Your task to perform on an android device: remove spam from my inbox in the gmail app Image 0: 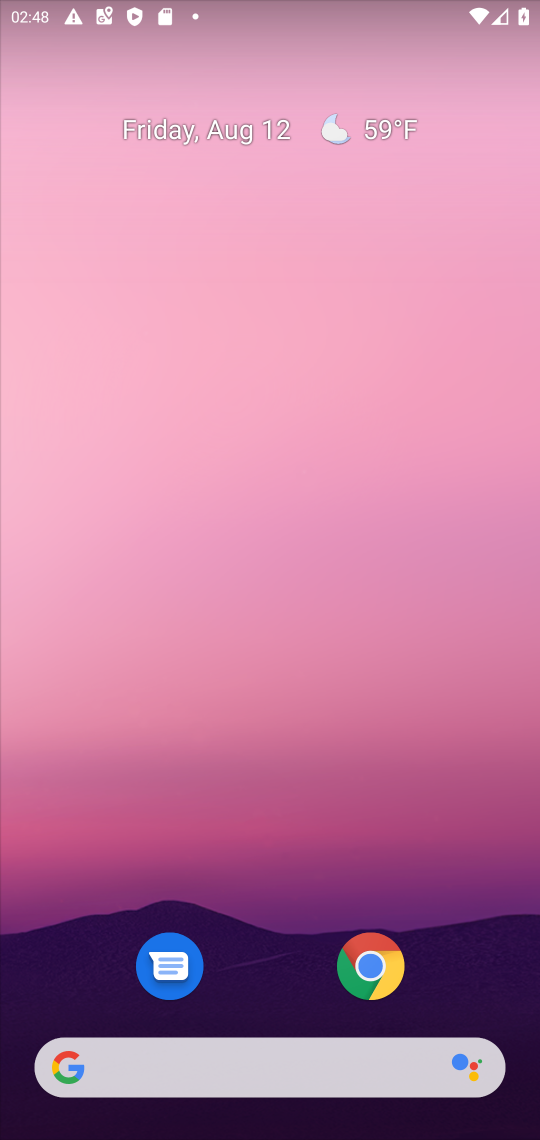
Step 0: drag from (445, 900) to (501, 35)
Your task to perform on an android device: remove spam from my inbox in the gmail app Image 1: 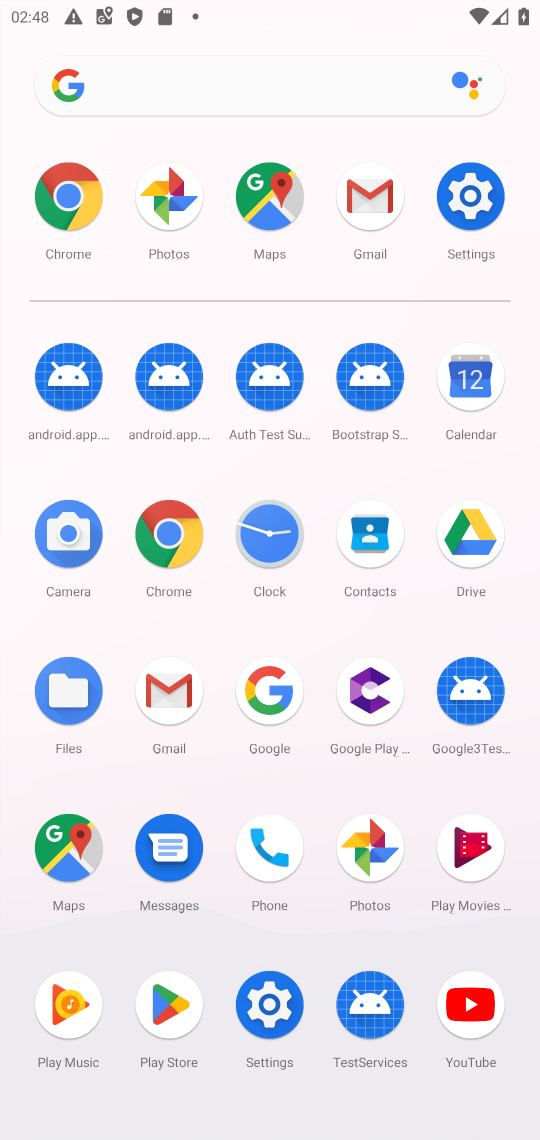
Step 1: click (369, 209)
Your task to perform on an android device: remove spam from my inbox in the gmail app Image 2: 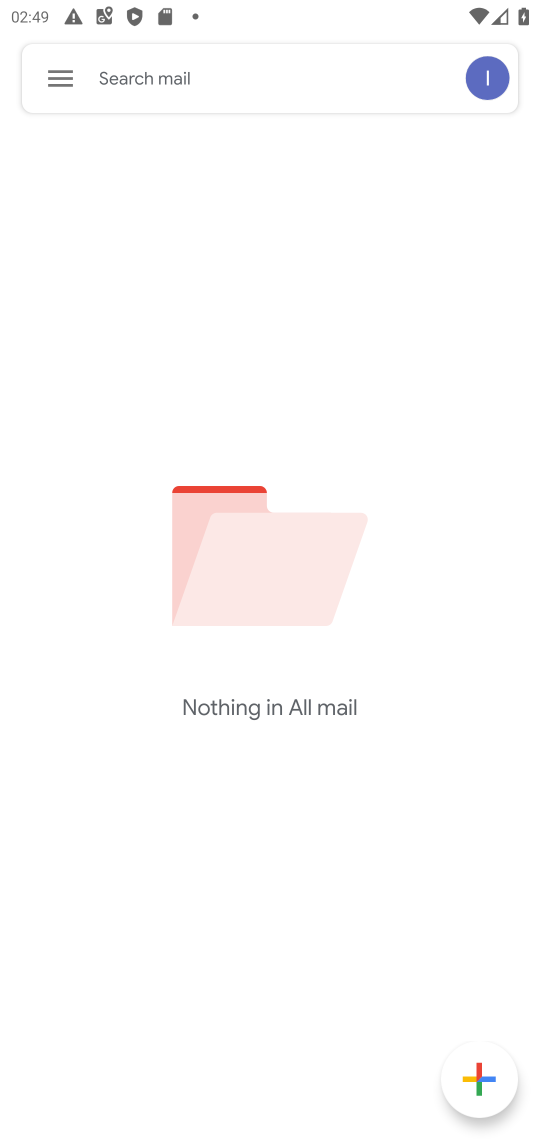
Step 2: click (66, 67)
Your task to perform on an android device: remove spam from my inbox in the gmail app Image 3: 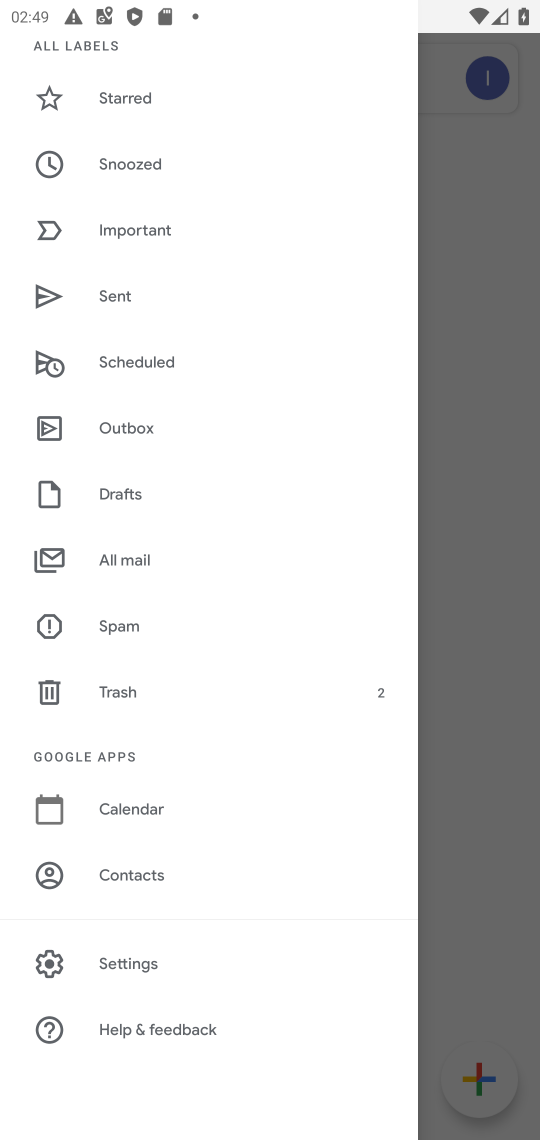
Step 3: drag from (172, 145) to (124, 793)
Your task to perform on an android device: remove spam from my inbox in the gmail app Image 4: 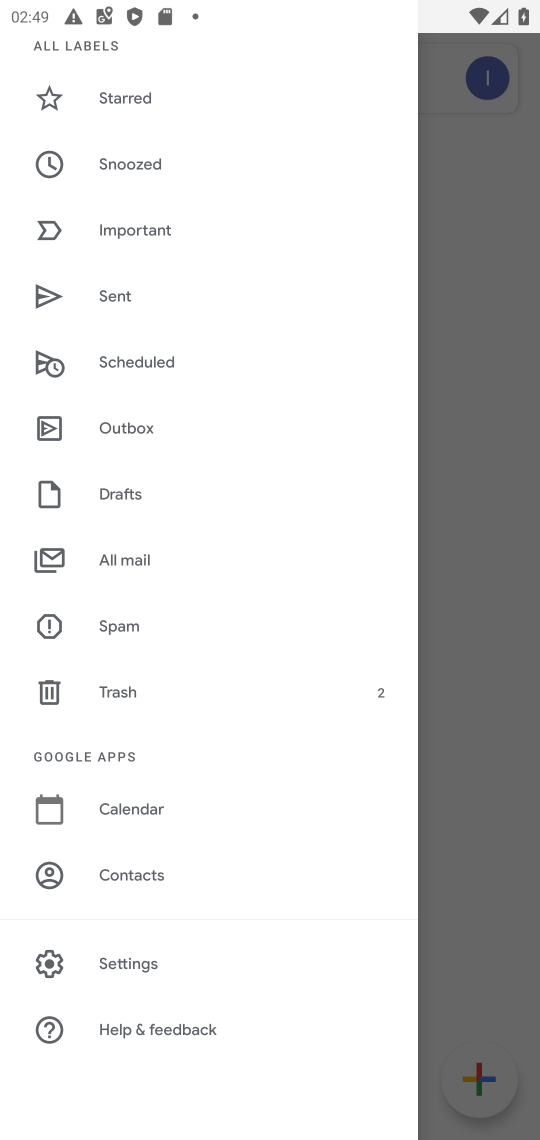
Step 4: drag from (114, 135) to (103, 802)
Your task to perform on an android device: remove spam from my inbox in the gmail app Image 5: 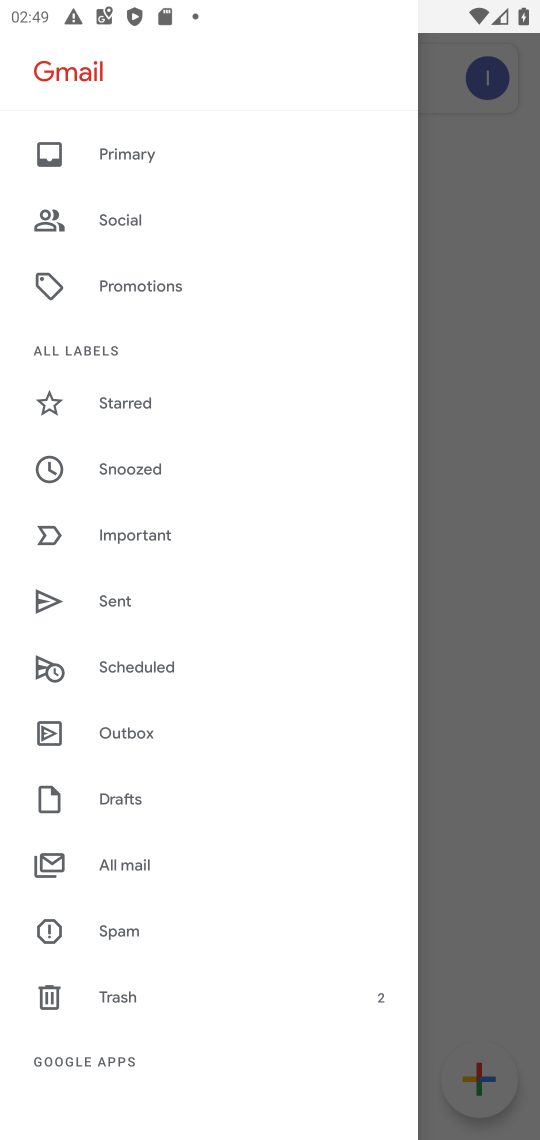
Step 5: click (126, 152)
Your task to perform on an android device: remove spam from my inbox in the gmail app Image 6: 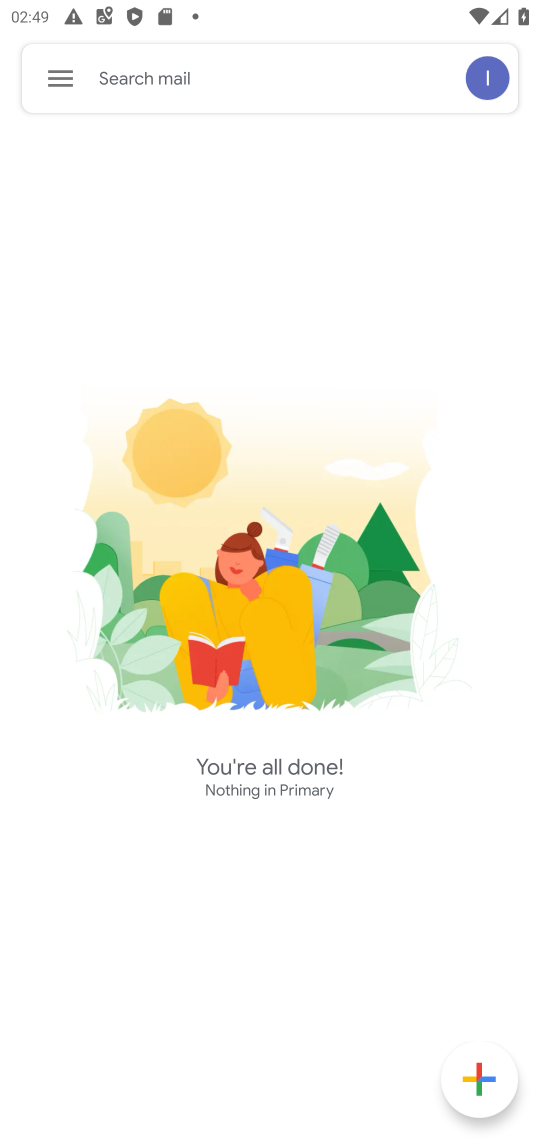
Step 6: task complete